Your task to perform on an android device: Search for "logitech g903" on amazon.com, select the first entry, add it to the cart, then select checkout. Image 0: 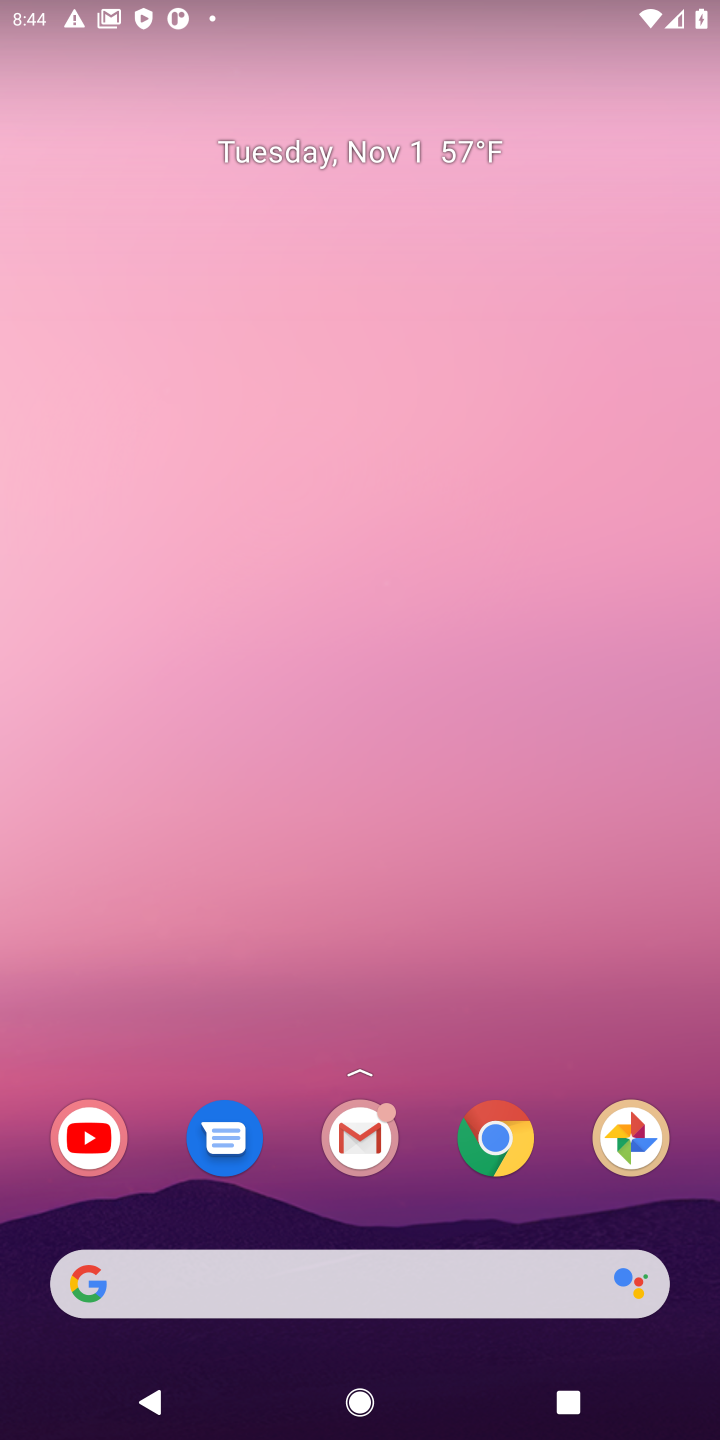
Step 0: click (499, 1154)
Your task to perform on an android device: Search for "logitech g903" on amazon.com, select the first entry, add it to the cart, then select checkout. Image 1: 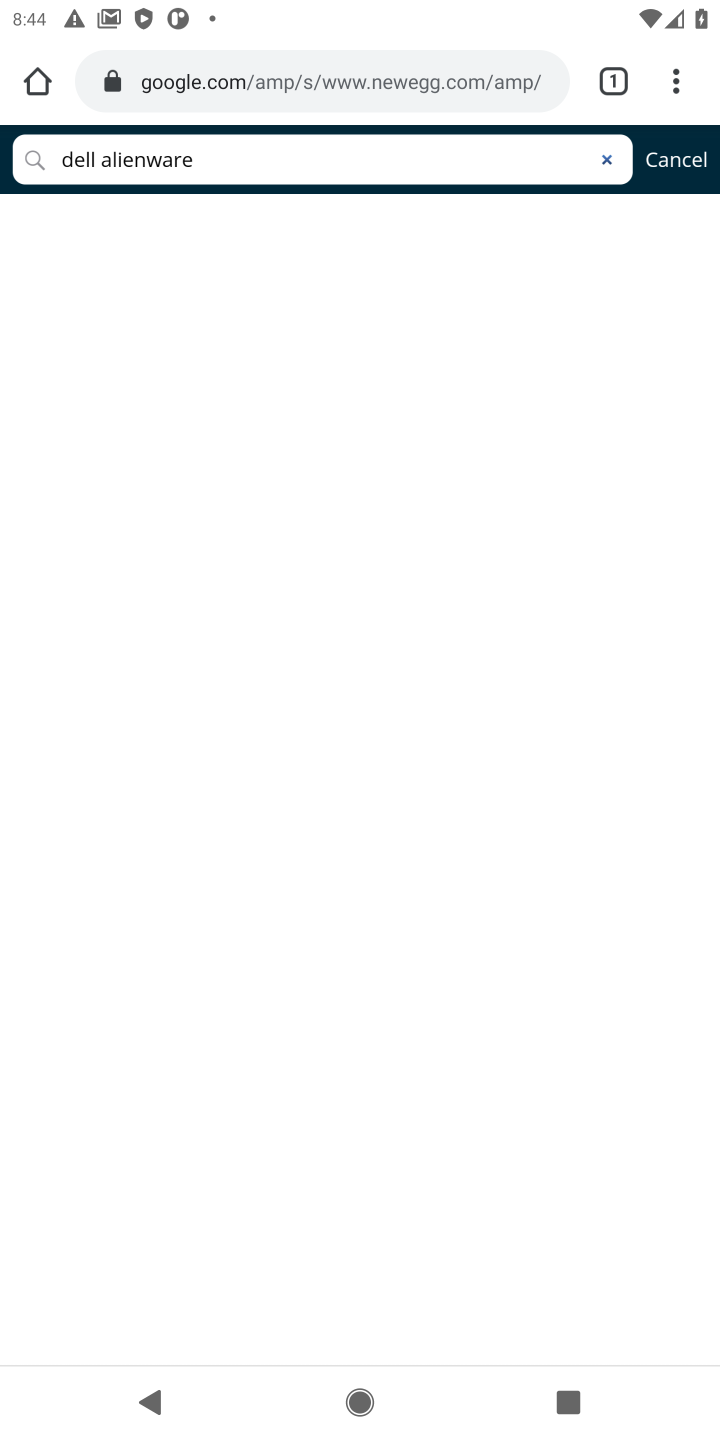
Step 1: click (258, 93)
Your task to perform on an android device: Search for "logitech g903" on amazon.com, select the first entry, add it to the cart, then select checkout. Image 2: 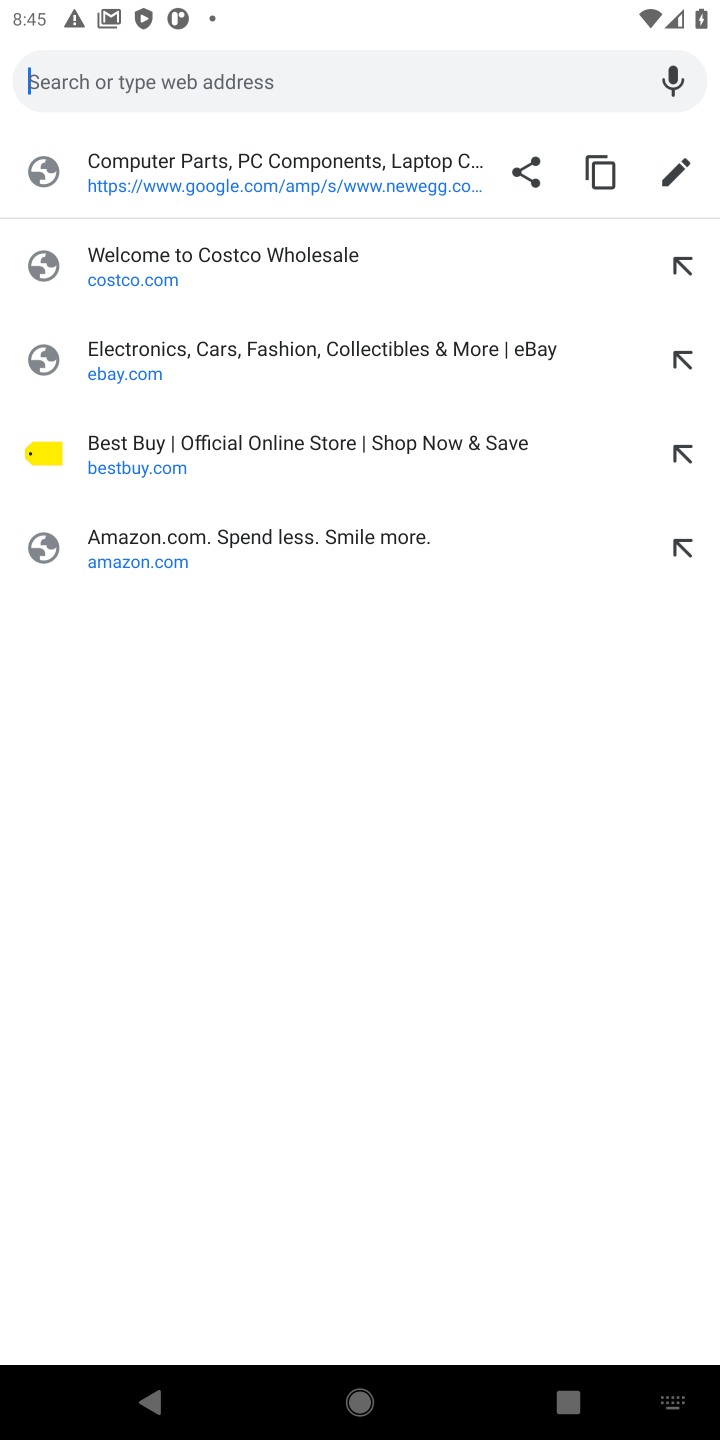
Step 2: click (138, 551)
Your task to perform on an android device: Search for "logitech g903" on amazon.com, select the first entry, add it to the cart, then select checkout. Image 3: 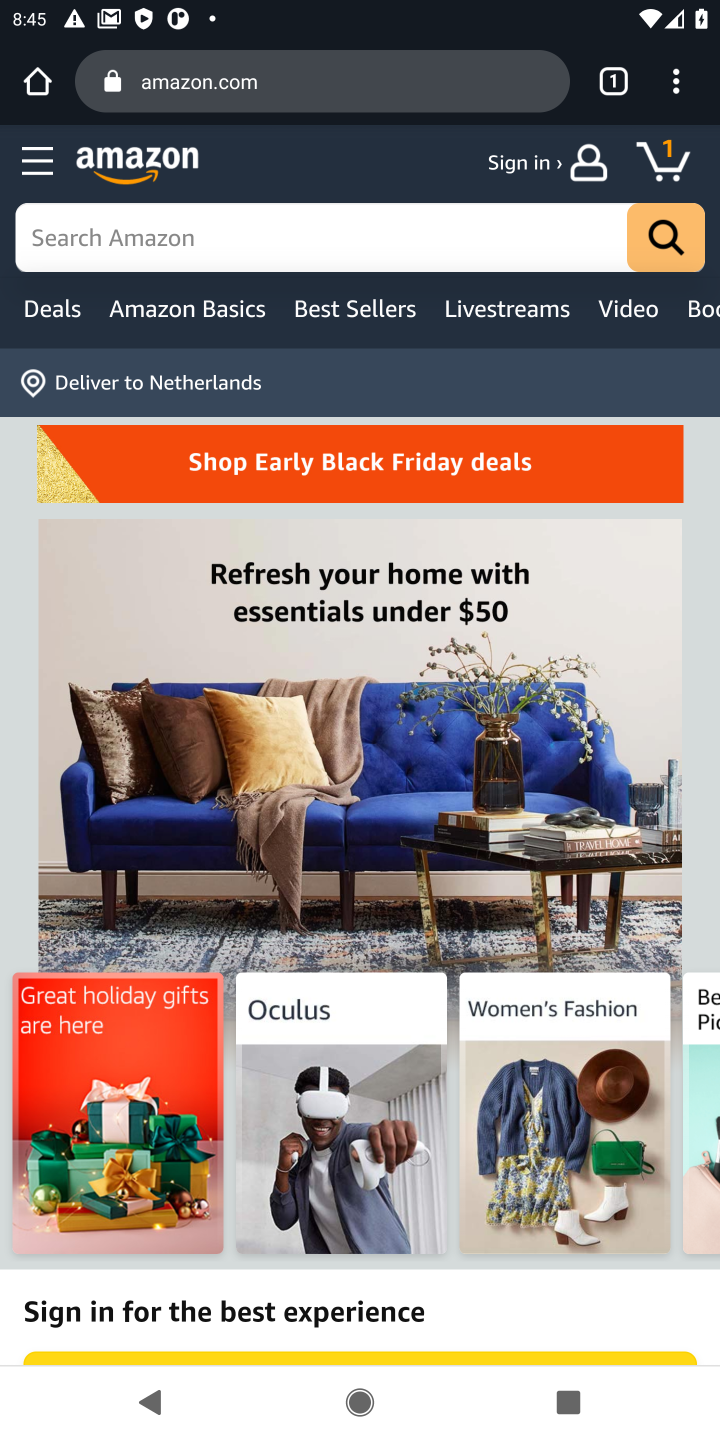
Step 3: click (213, 233)
Your task to perform on an android device: Search for "logitech g903" on amazon.com, select the first entry, add it to the cart, then select checkout. Image 4: 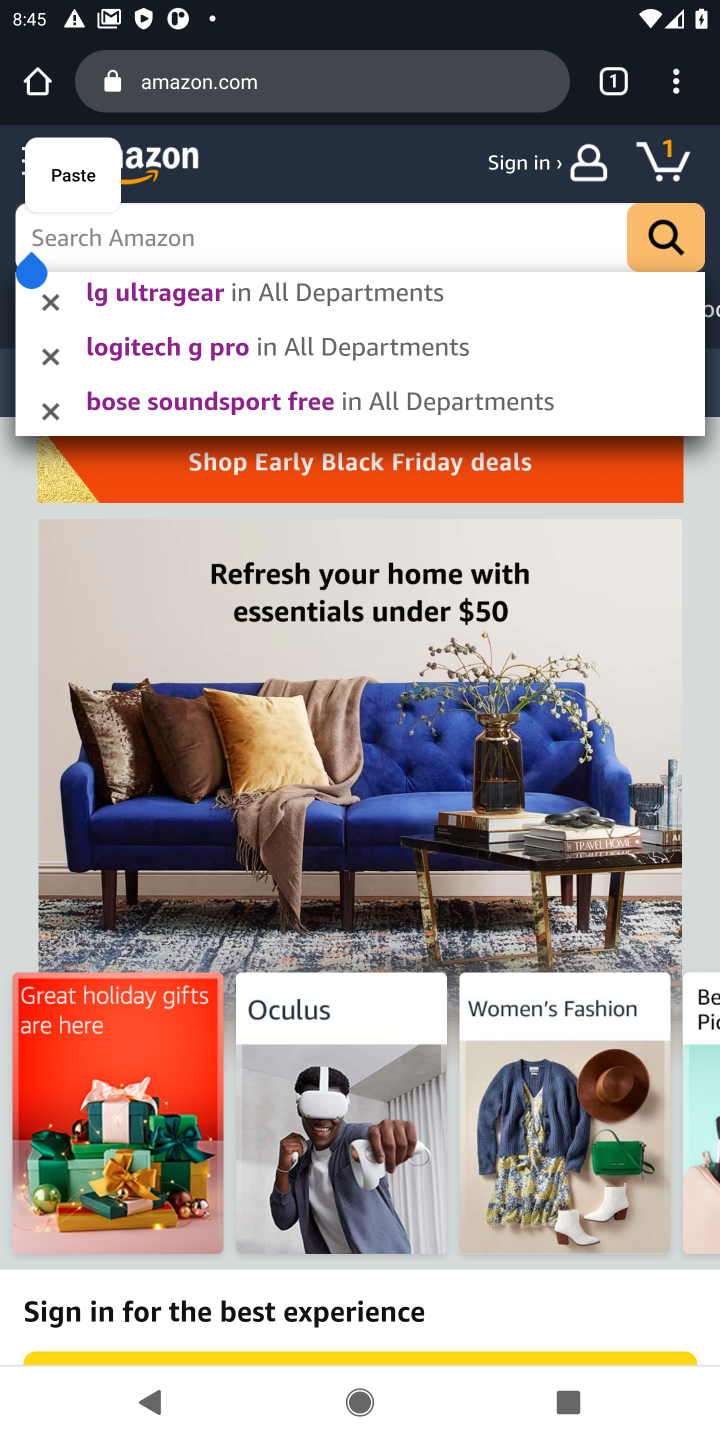
Step 4: type "logitech g903"
Your task to perform on an android device: Search for "logitech g903" on amazon.com, select the first entry, add it to the cart, then select checkout. Image 5: 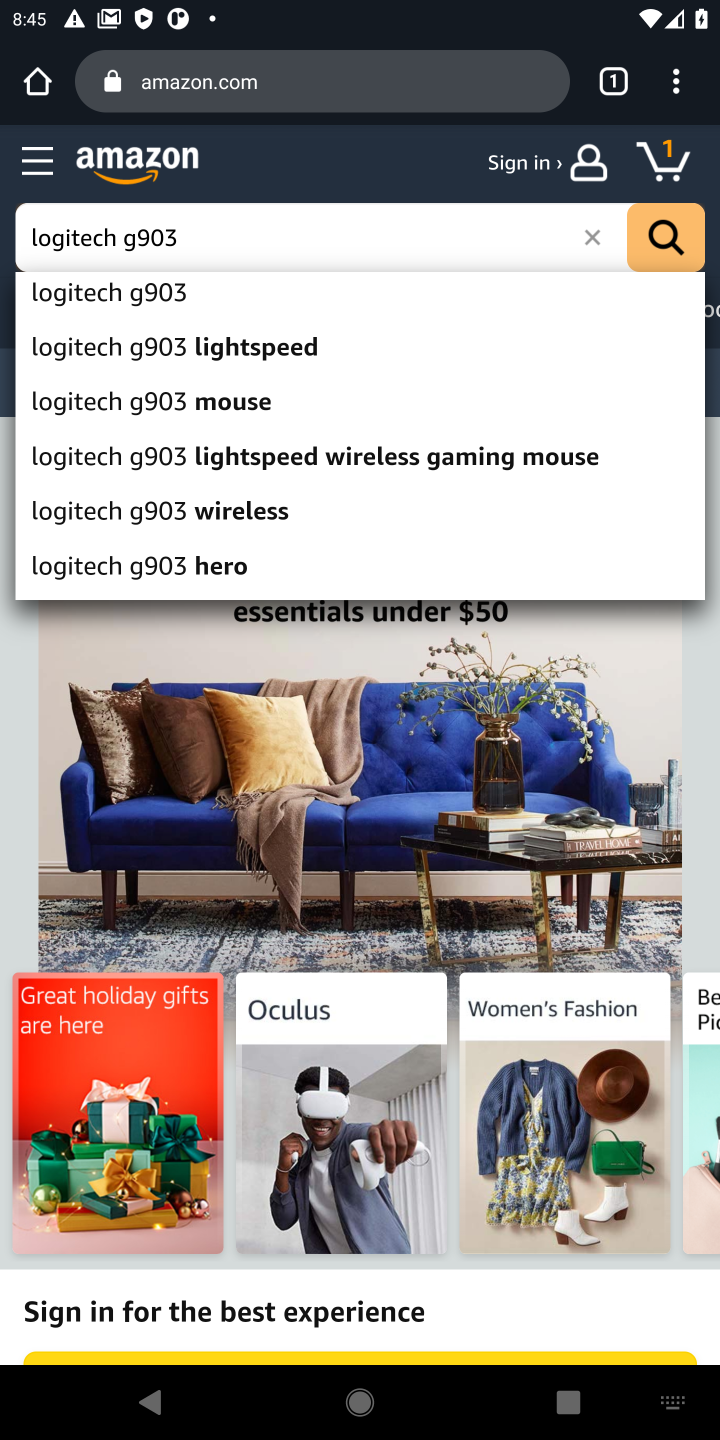
Step 5: click (106, 294)
Your task to perform on an android device: Search for "logitech g903" on amazon.com, select the first entry, add it to the cart, then select checkout. Image 6: 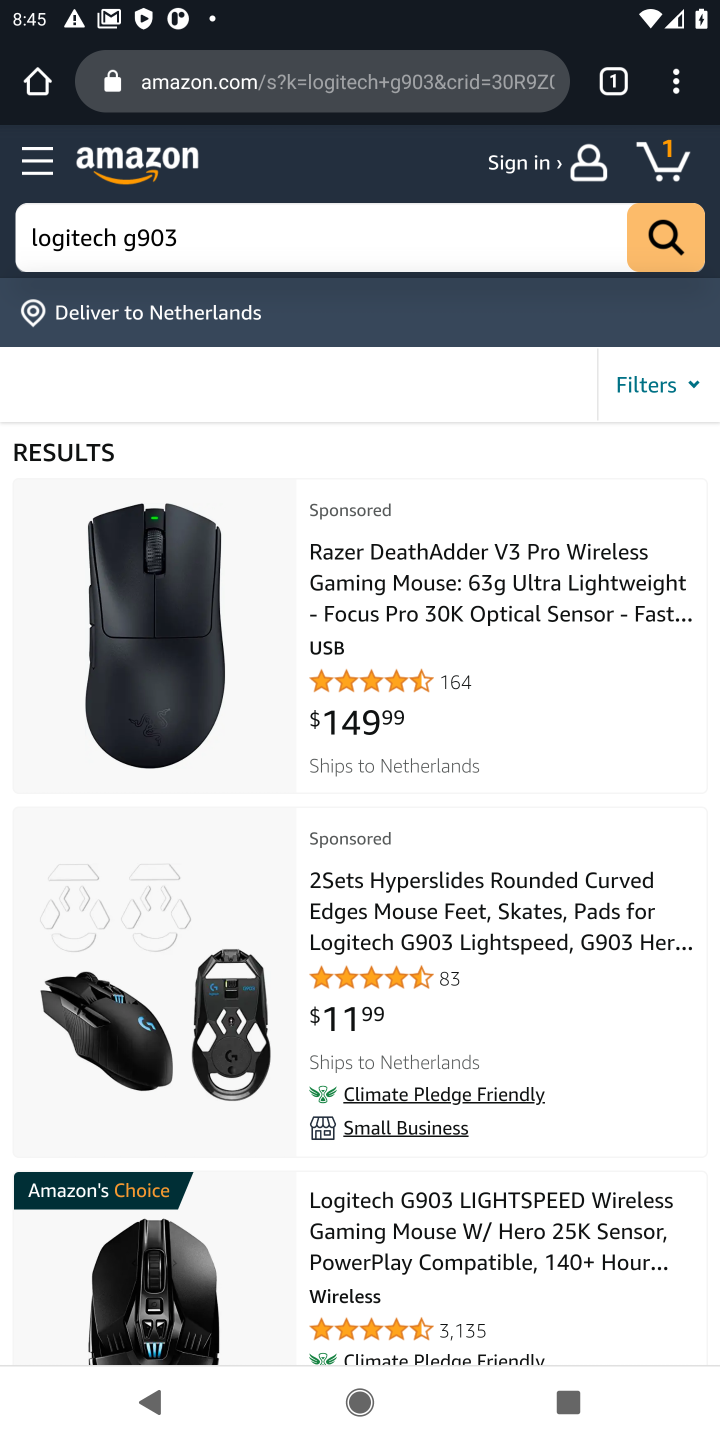
Step 6: click (249, 541)
Your task to perform on an android device: Search for "logitech g903" on amazon.com, select the first entry, add it to the cart, then select checkout. Image 7: 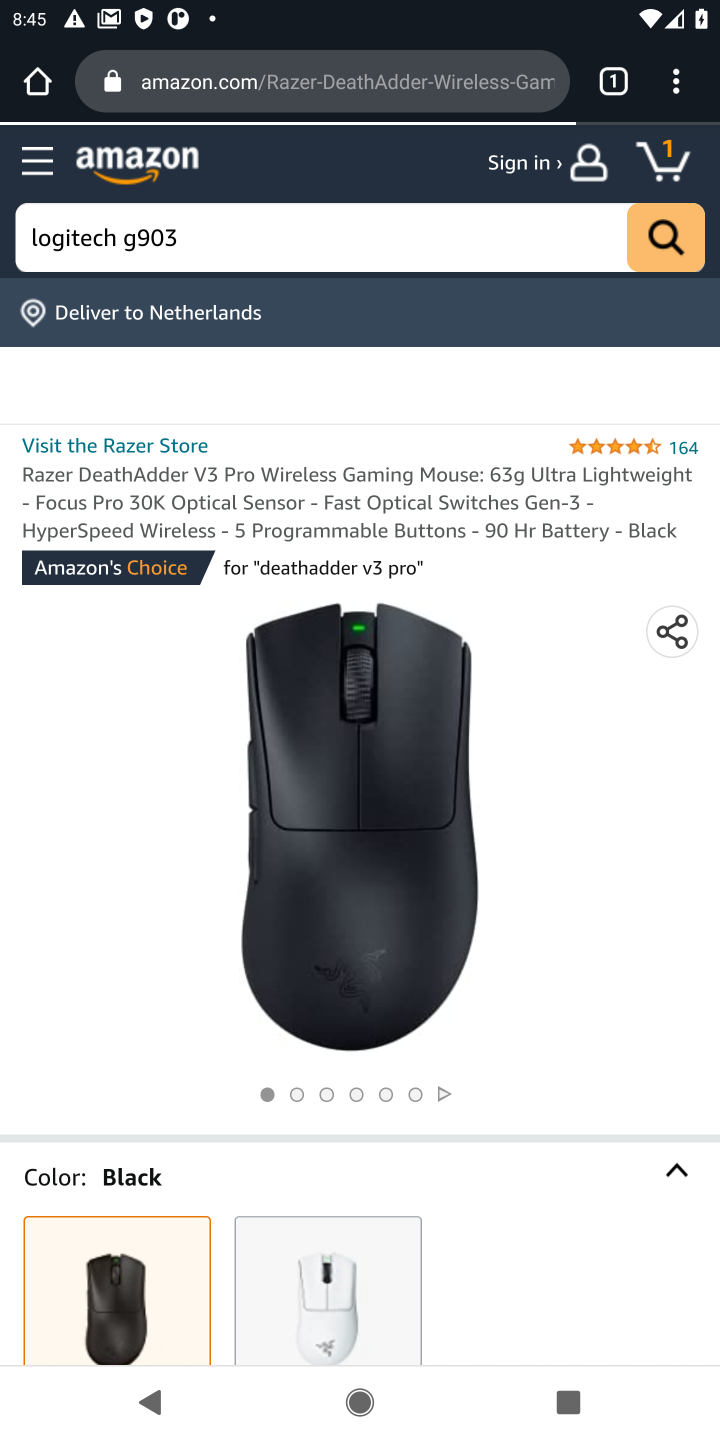
Step 7: drag from (297, 913) to (299, 789)
Your task to perform on an android device: Search for "logitech g903" on amazon.com, select the first entry, add it to the cart, then select checkout. Image 8: 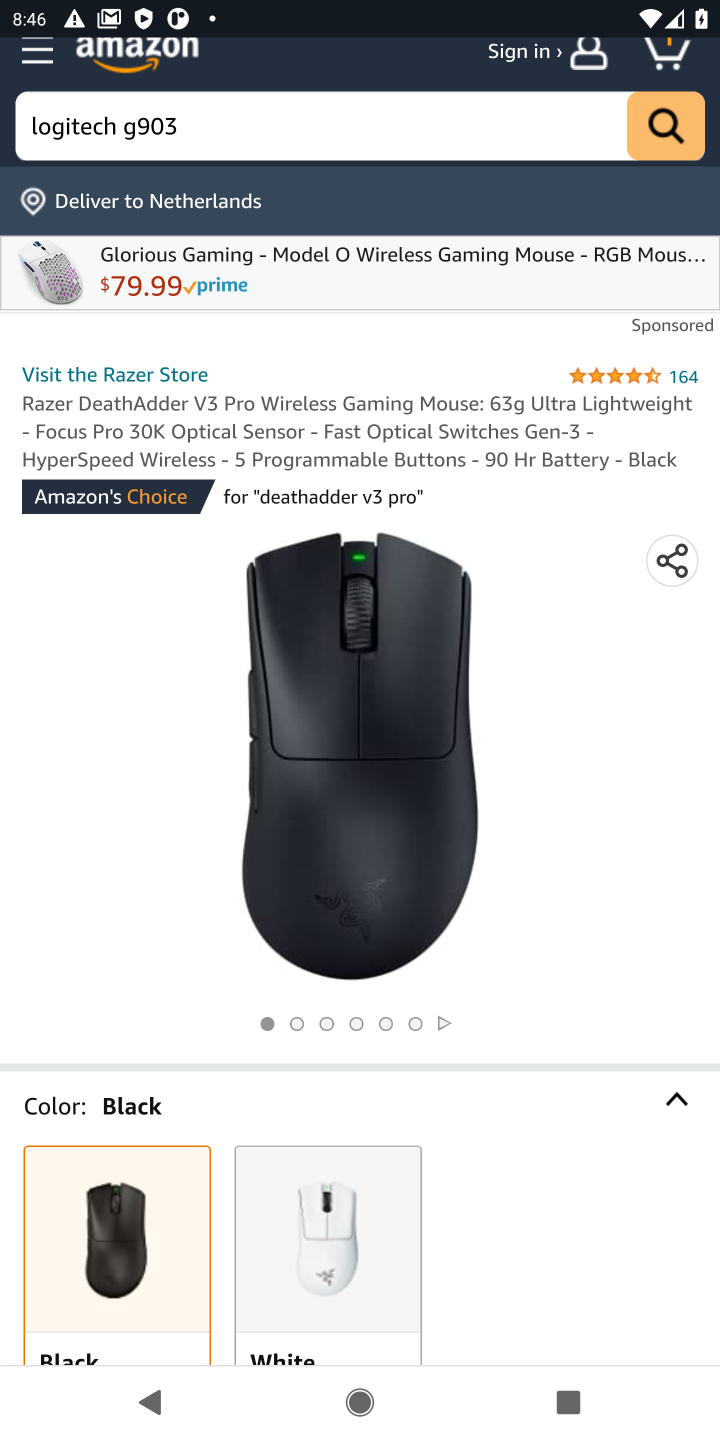
Step 8: drag from (314, 917) to (326, 638)
Your task to perform on an android device: Search for "logitech g903" on amazon.com, select the first entry, add it to the cart, then select checkout. Image 9: 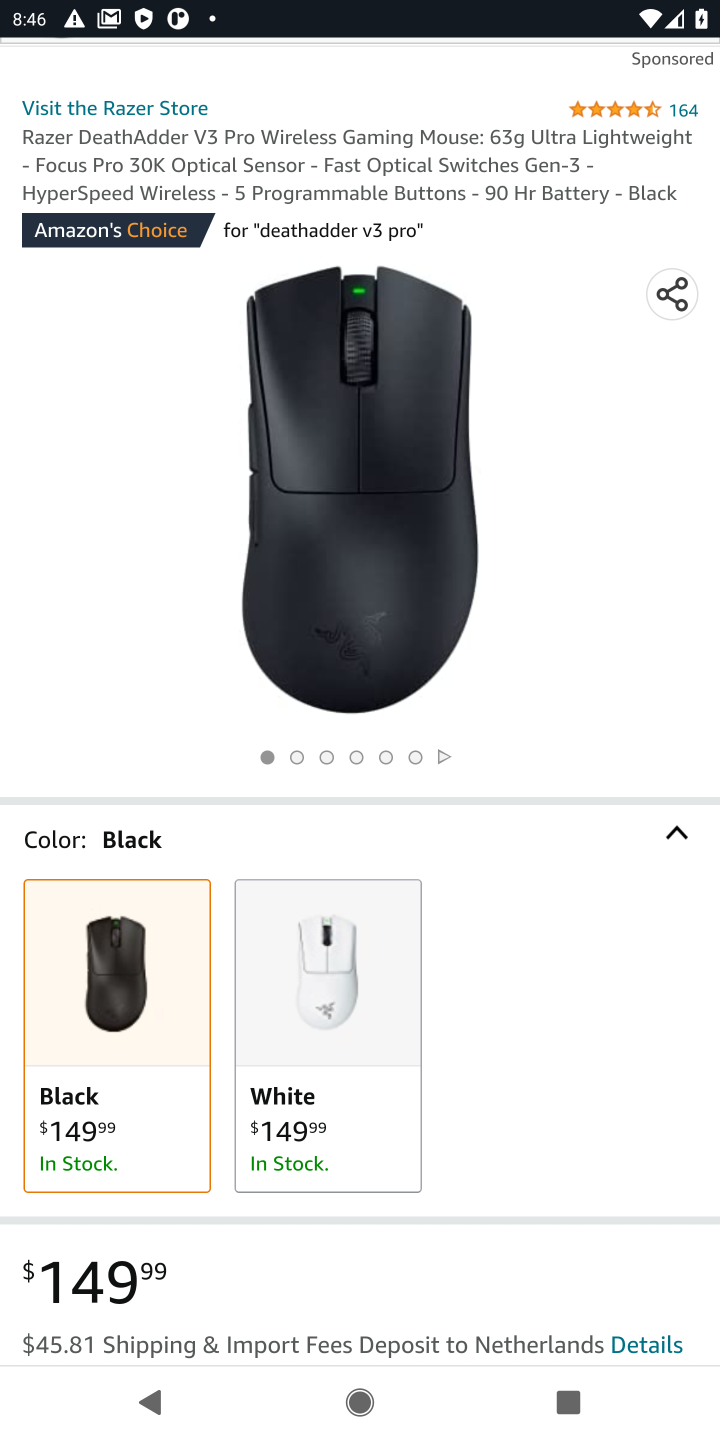
Step 9: drag from (271, 1042) to (289, 678)
Your task to perform on an android device: Search for "logitech g903" on amazon.com, select the first entry, add it to the cart, then select checkout. Image 10: 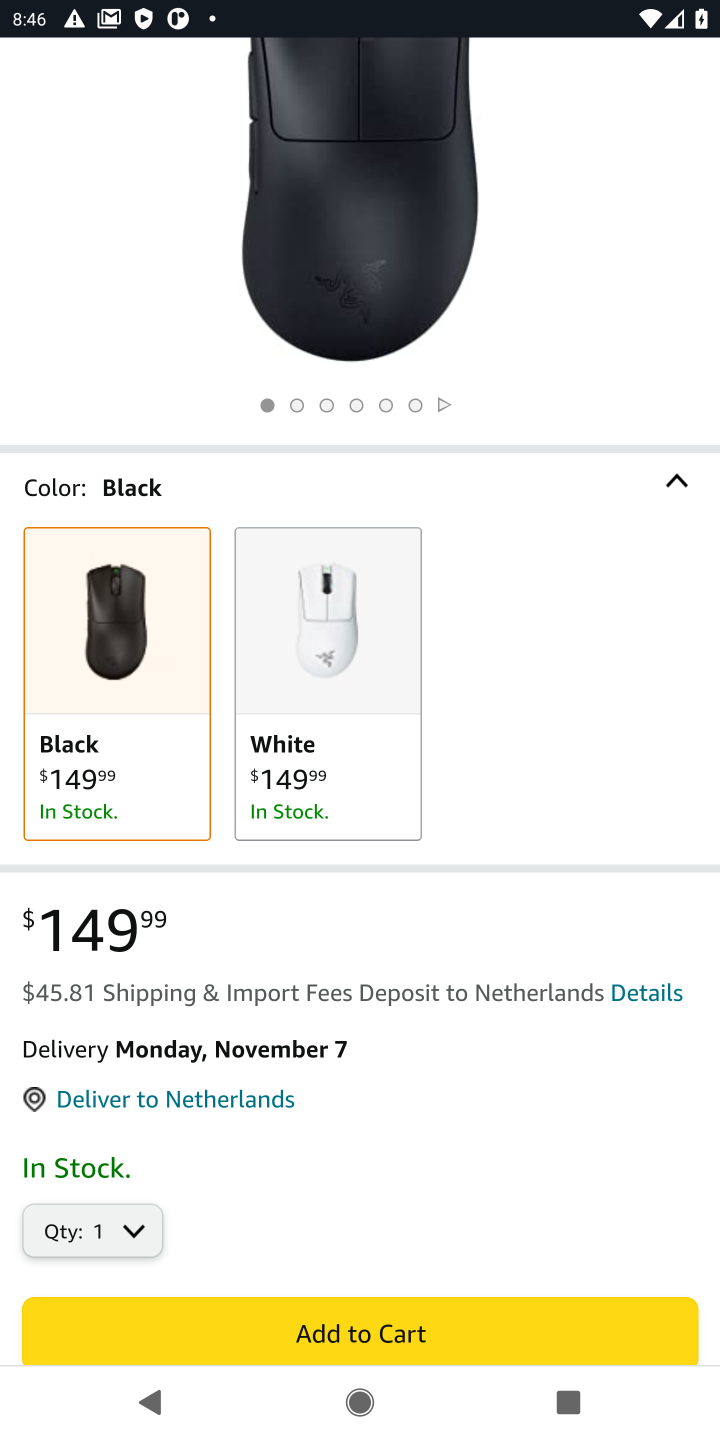
Step 10: drag from (301, 1015) to (316, 776)
Your task to perform on an android device: Search for "logitech g903" on amazon.com, select the first entry, add it to the cart, then select checkout. Image 11: 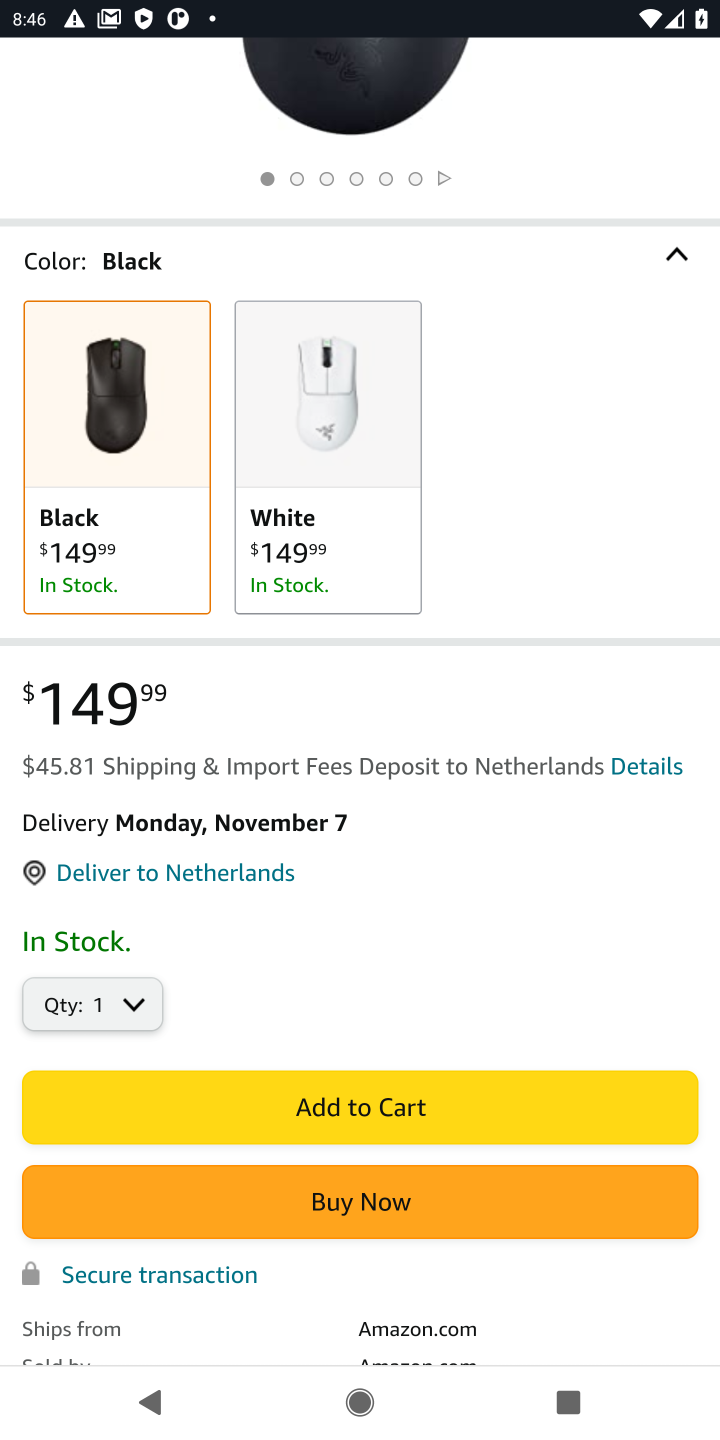
Step 11: click (338, 1102)
Your task to perform on an android device: Search for "logitech g903" on amazon.com, select the first entry, add it to the cart, then select checkout. Image 12: 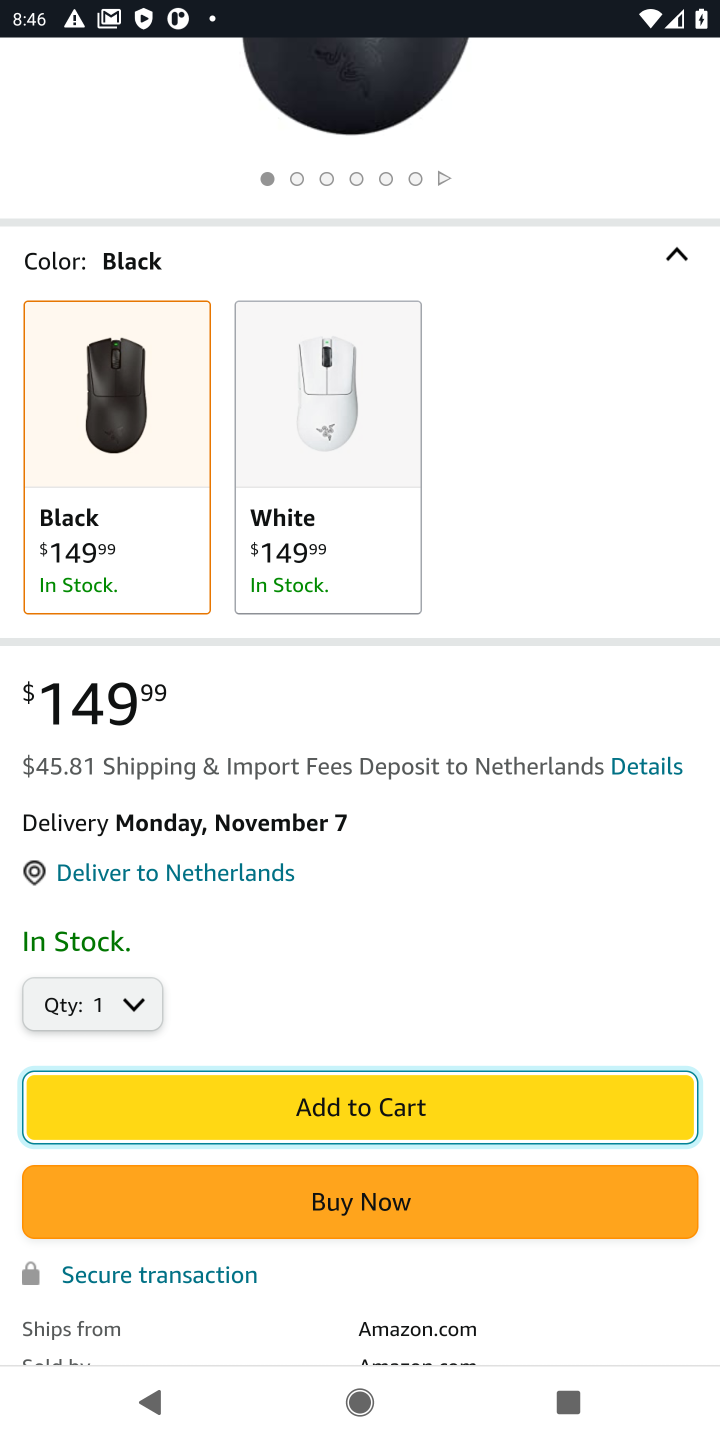
Step 12: click (340, 1102)
Your task to perform on an android device: Search for "logitech g903" on amazon.com, select the first entry, add it to the cart, then select checkout. Image 13: 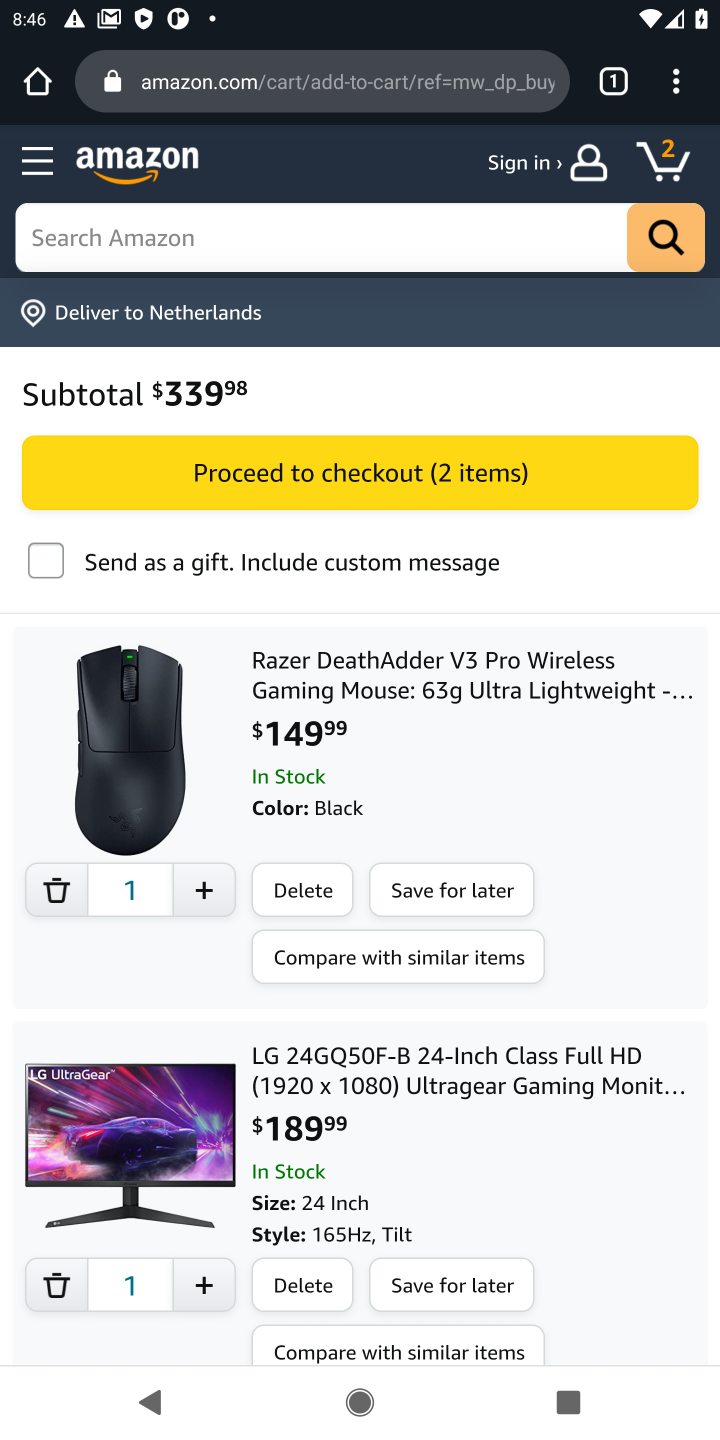
Step 13: click (335, 471)
Your task to perform on an android device: Search for "logitech g903" on amazon.com, select the first entry, add it to the cart, then select checkout. Image 14: 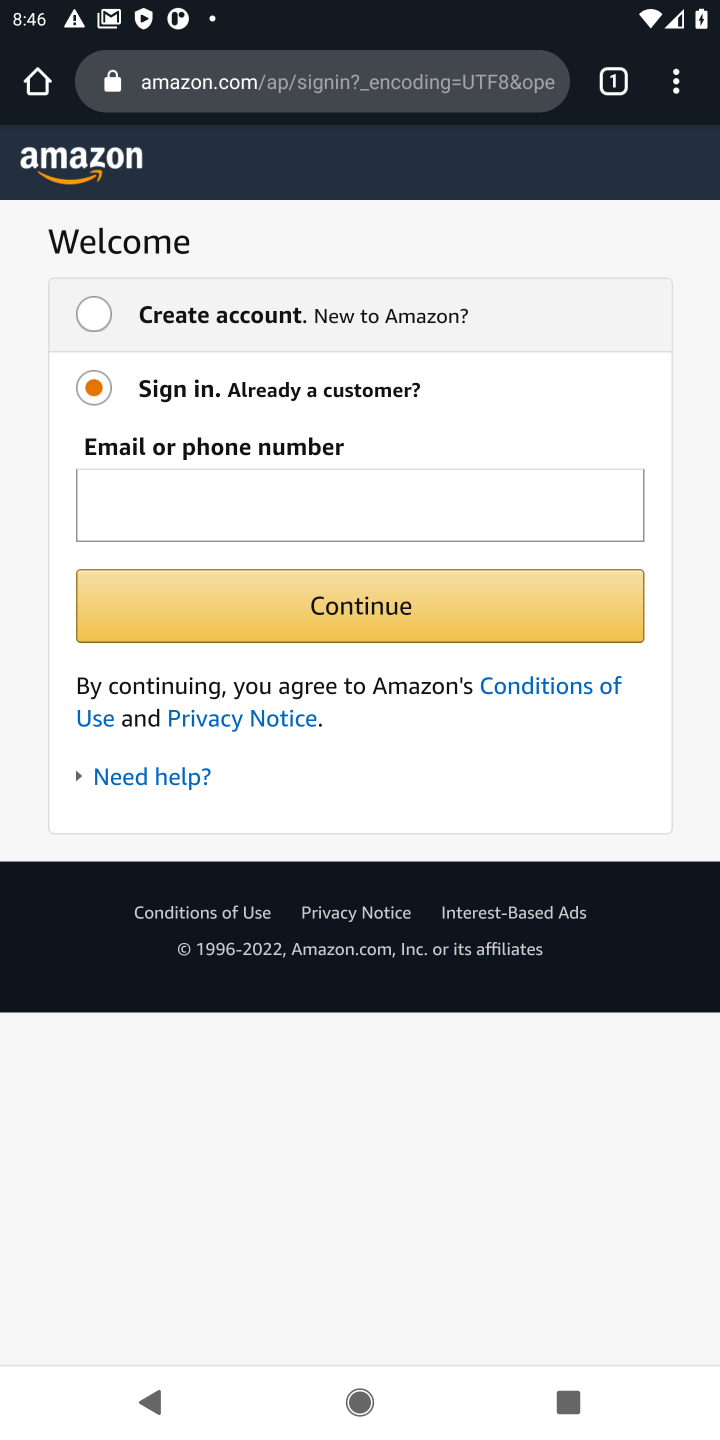
Step 14: task complete